Your task to perform on an android device: turn on location history Image 0: 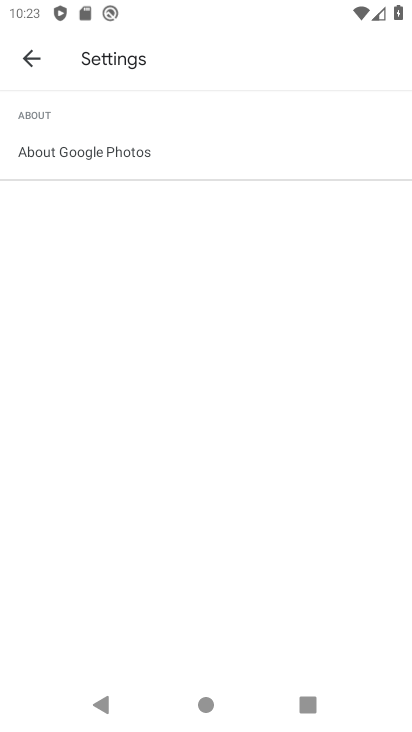
Step 0: press home button
Your task to perform on an android device: turn on location history Image 1: 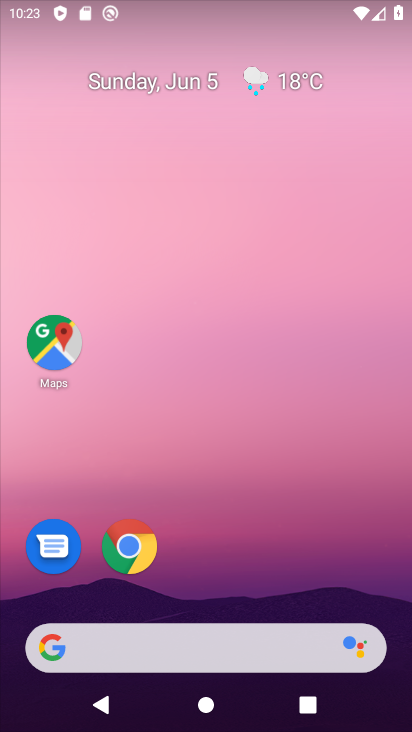
Step 1: drag from (176, 203) to (176, 11)
Your task to perform on an android device: turn on location history Image 2: 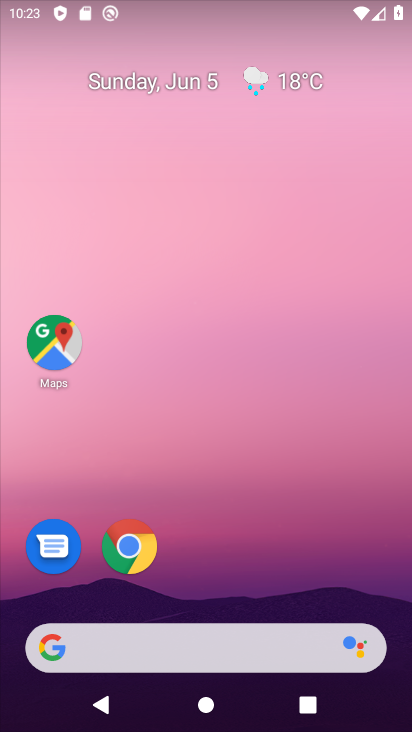
Step 2: drag from (155, 723) to (161, 57)
Your task to perform on an android device: turn on location history Image 3: 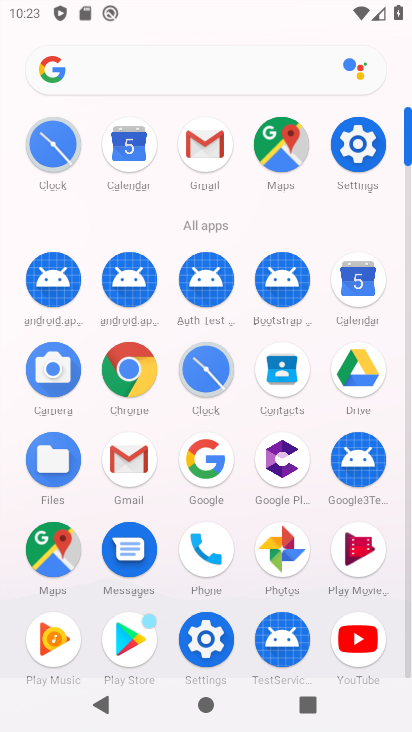
Step 3: click (357, 150)
Your task to perform on an android device: turn on location history Image 4: 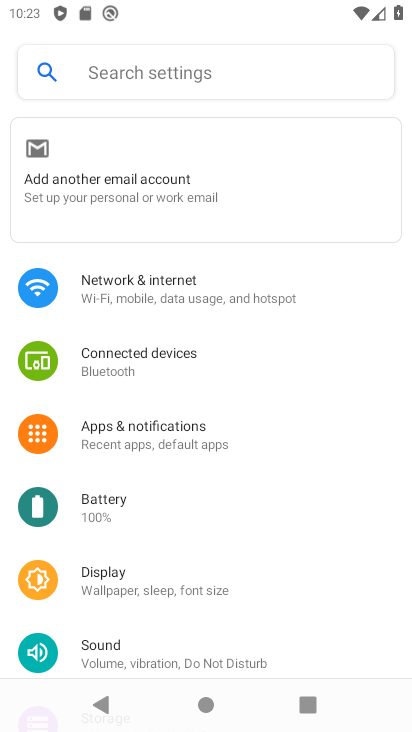
Step 4: drag from (232, 629) to (232, 256)
Your task to perform on an android device: turn on location history Image 5: 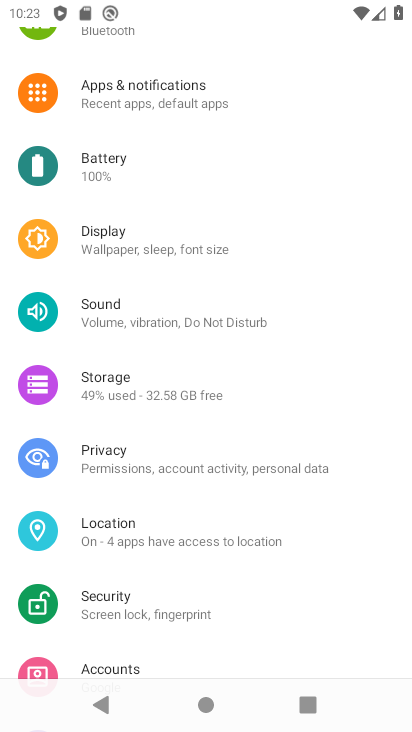
Step 5: click (141, 536)
Your task to perform on an android device: turn on location history Image 6: 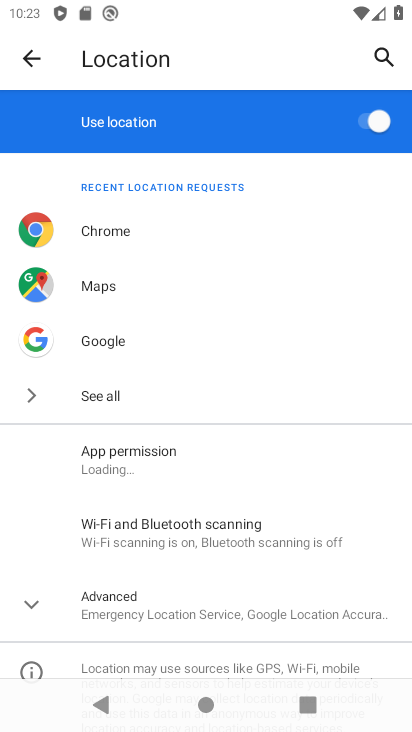
Step 6: click (217, 624)
Your task to perform on an android device: turn on location history Image 7: 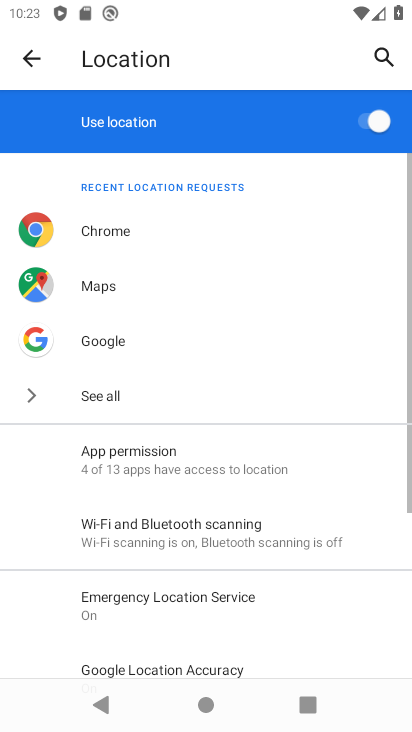
Step 7: drag from (47, 620) to (40, 266)
Your task to perform on an android device: turn on location history Image 8: 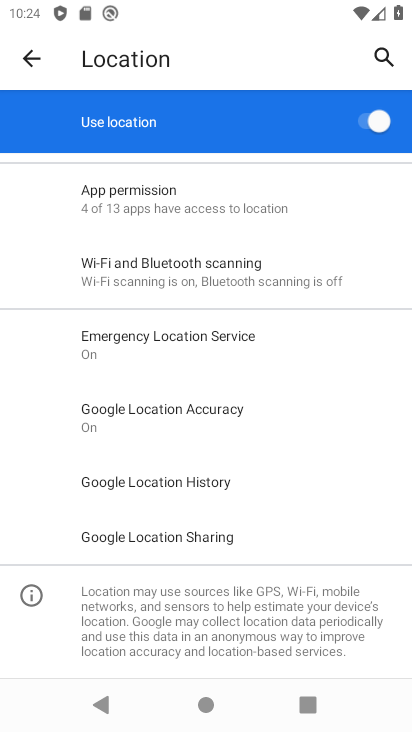
Step 8: click (192, 488)
Your task to perform on an android device: turn on location history Image 9: 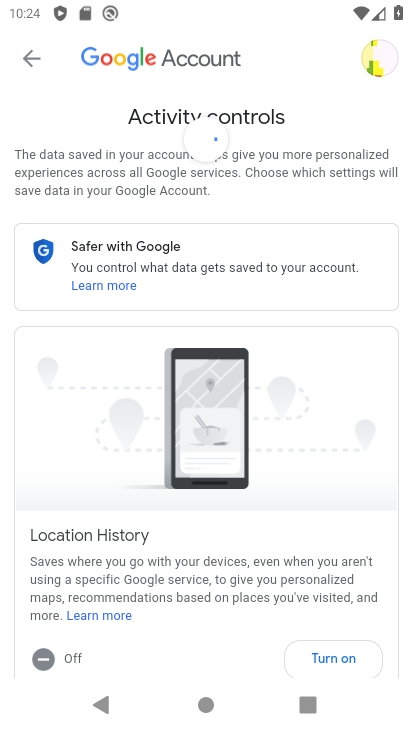
Step 9: click (313, 650)
Your task to perform on an android device: turn on location history Image 10: 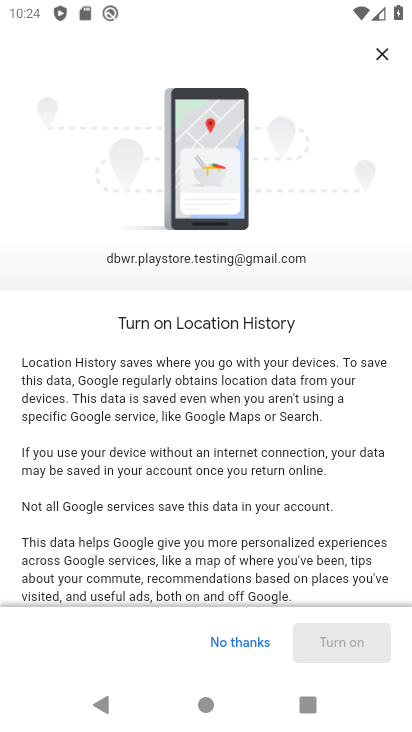
Step 10: drag from (322, 518) to (353, 144)
Your task to perform on an android device: turn on location history Image 11: 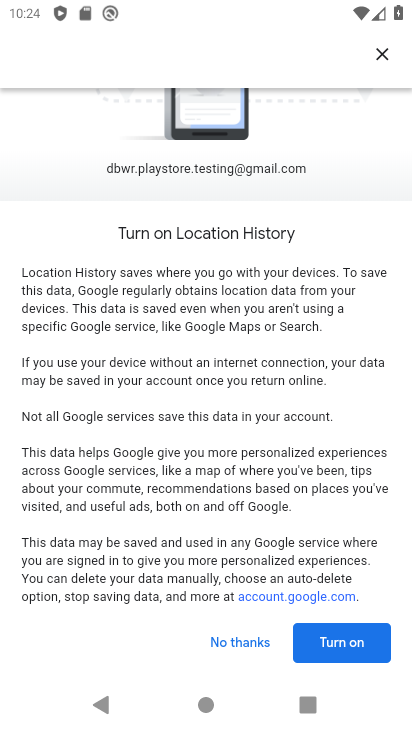
Step 11: click (334, 651)
Your task to perform on an android device: turn on location history Image 12: 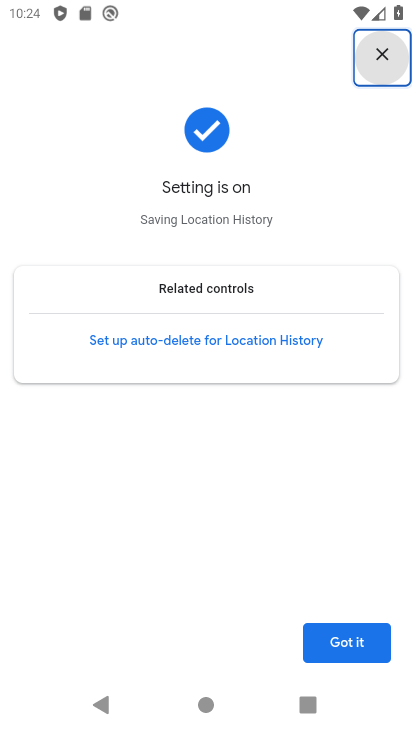
Step 12: click (368, 642)
Your task to perform on an android device: turn on location history Image 13: 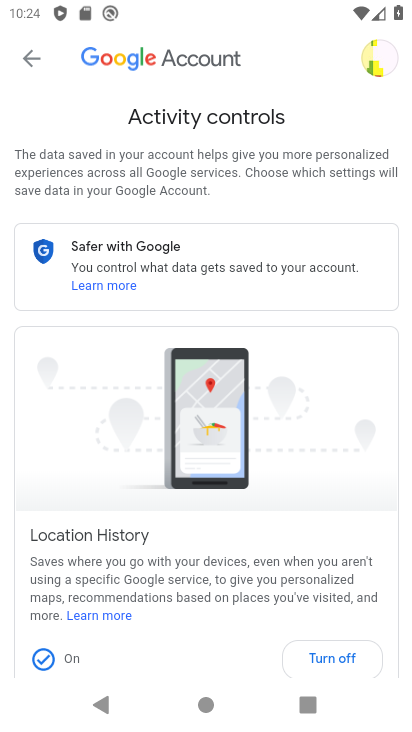
Step 13: task complete